Your task to perform on an android device: Go to ESPN.com Image 0: 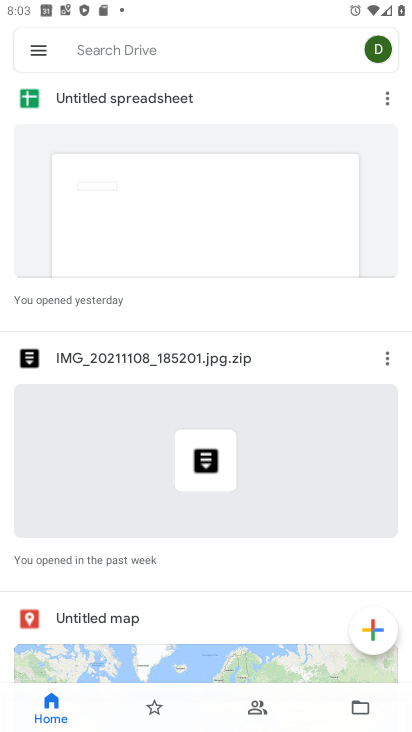
Step 0: press home button
Your task to perform on an android device: Go to ESPN.com Image 1: 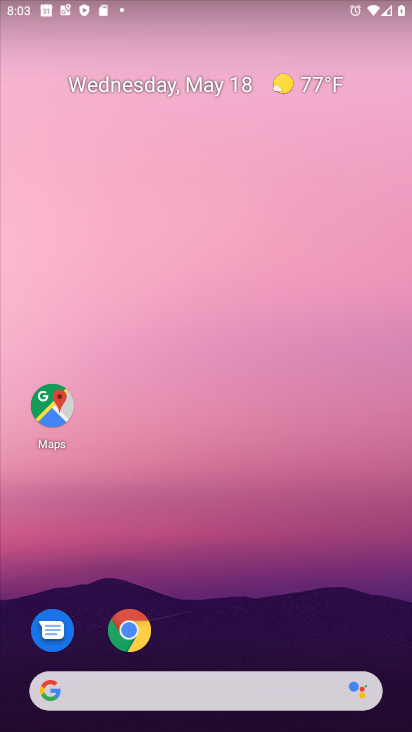
Step 1: click (139, 640)
Your task to perform on an android device: Go to ESPN.com Image 2: 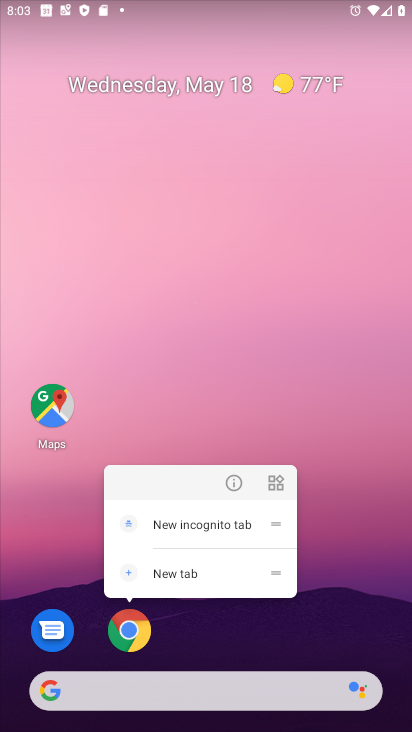
Step 2: click (130, 632)
Your task to perform on an android device: Go to ESPN.com Image 3: 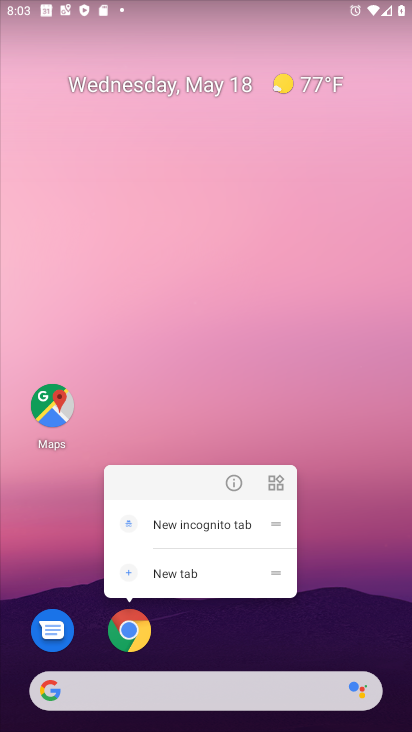
Step 3: click (147, 644)
Your task to perform on an android device: Go to ESPN.com Image 4: 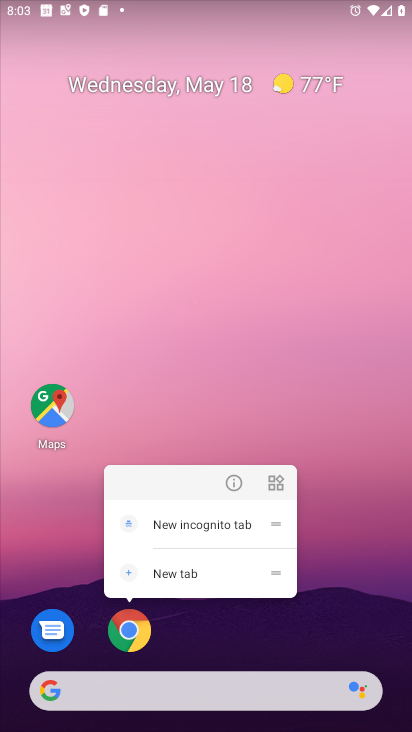
Step 4: click (146, 641)
Your task to perform on an android device: Go to ESPN.com Image 5: 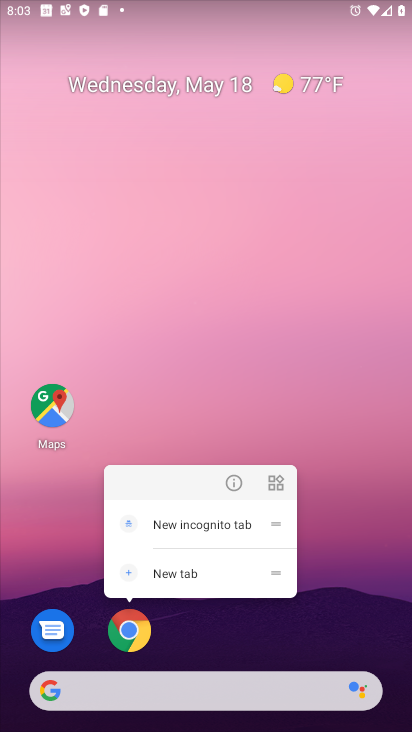
Step 5: click (133, 658)
Your task to perform on an android device: Go to ESPN.com Image 6: 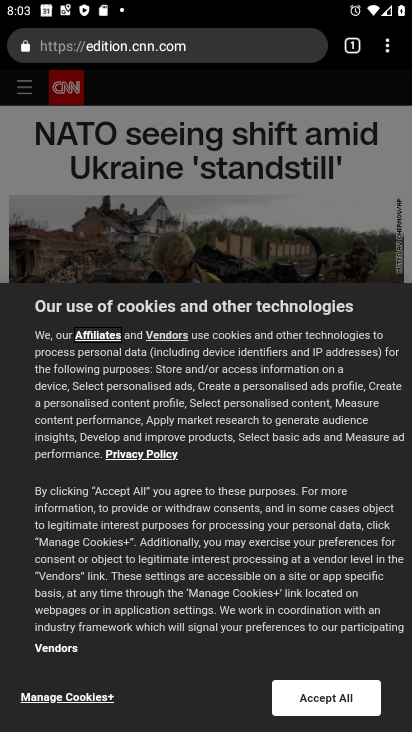
Step 6: click (243, 44)
Your task to perform on an android device: Go to ESPN.com Image 7: 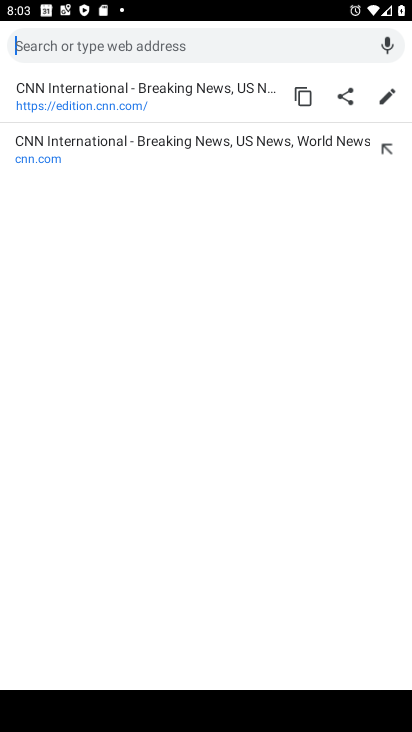
Step 7: type "ESPN.com"
Your task to perform on an android device: Go to ESPN.com Image 8: 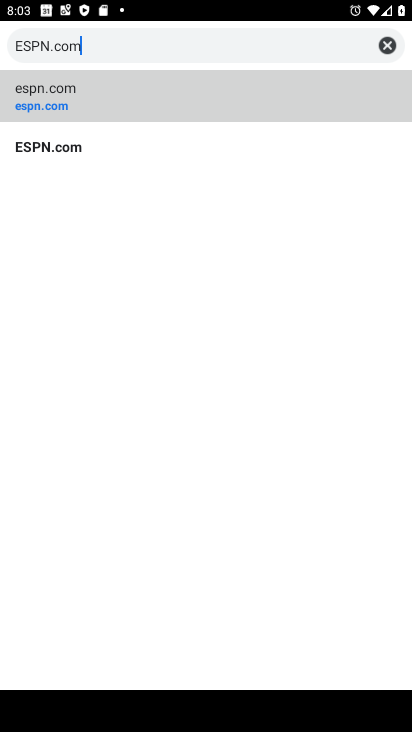
Step 8: click (120, 92)
Your task to perform on an android device: Go to ESPN.com Image 9: 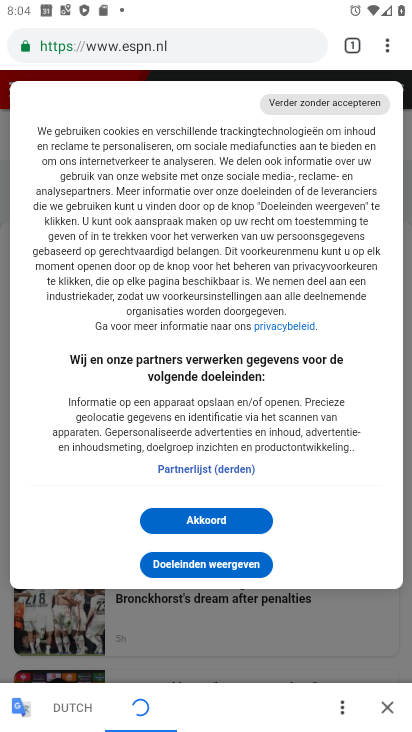
Step 9: task complete